Your task to perform on an android device: Go to privacy settings Image 0: 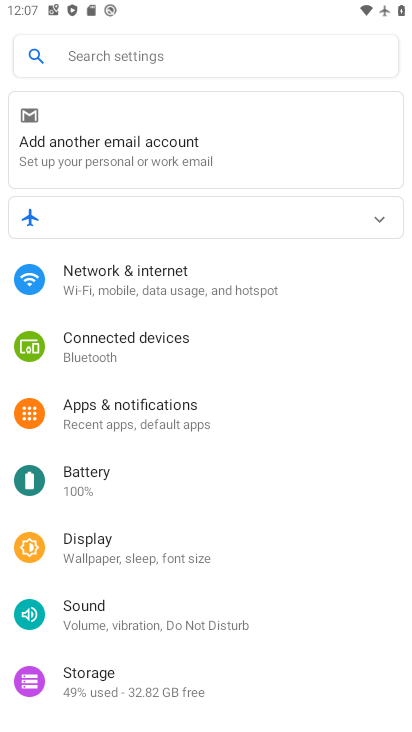
Step 0: press home button
Your task to perform on an android device: Go to privacy settings Image 1: 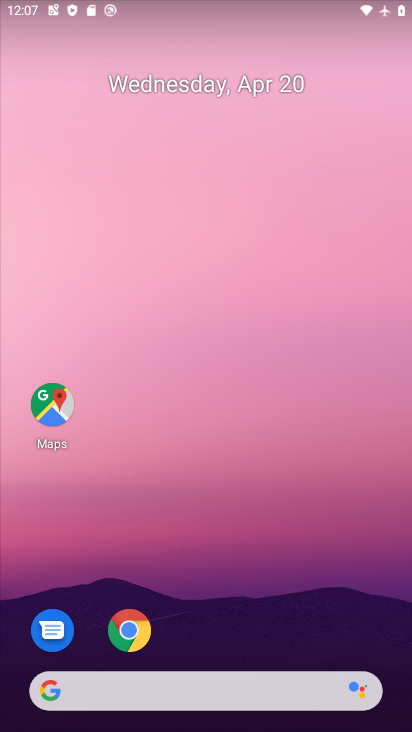
Step 1: drag from (190, 647) to (314, 215)
Your task to perform on an android device: Go to privacy settings Image 2: 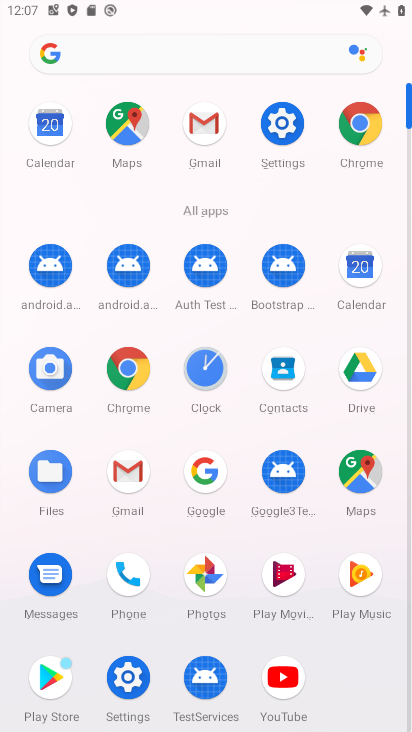
Step 2: click (285, 127)
Your task to perform on an android device: Go to privacy settings Image 3: 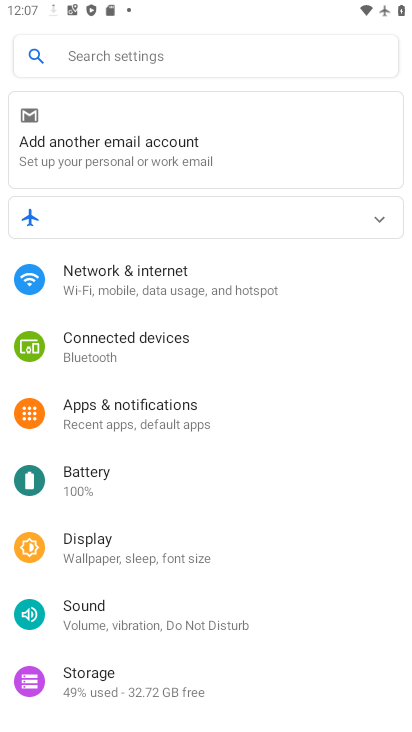
Step 3: drag from (235, 586) to (350, 235)
Your task to perform on an android device: Go to privacy settings Image 4: 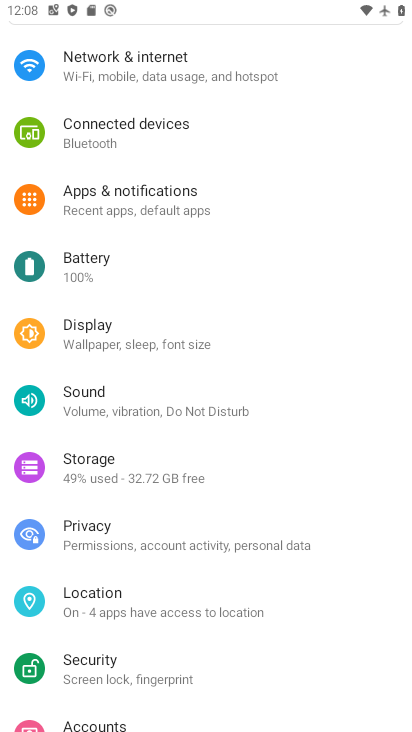
Step 4: click (100, 530)
Your task to perform on an android device: Go to privacy settings Image 5: 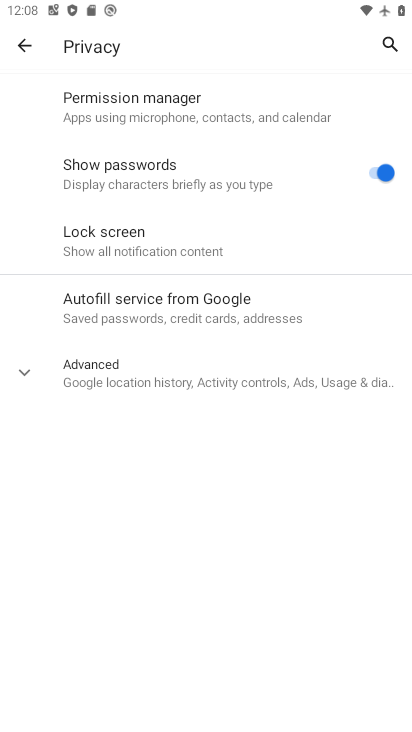
Step 5: task complete